Your task to perform on an android device: Go to accessibility settings Image 0: 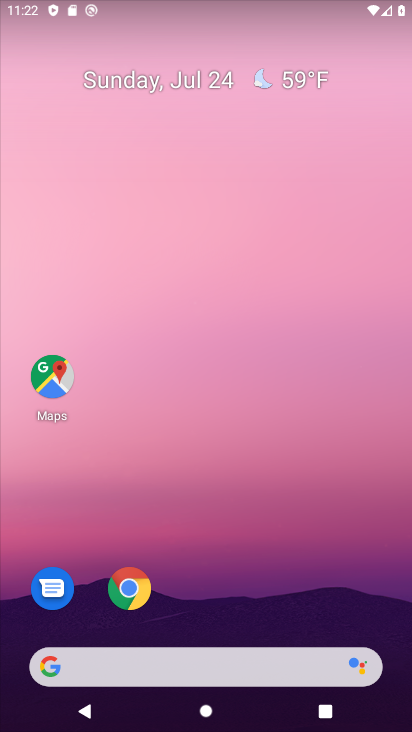
Step 0: drag from (277, 501) to (148, 14)
Your task to perform on an android device: Go to accessibility settings Image 1: 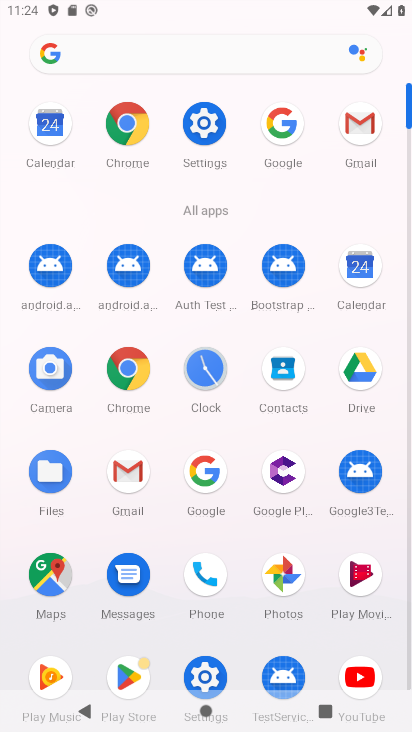
Step 1: click (195, 669)
Your task to perform on an android device: Go to accessibility settings Image 2: 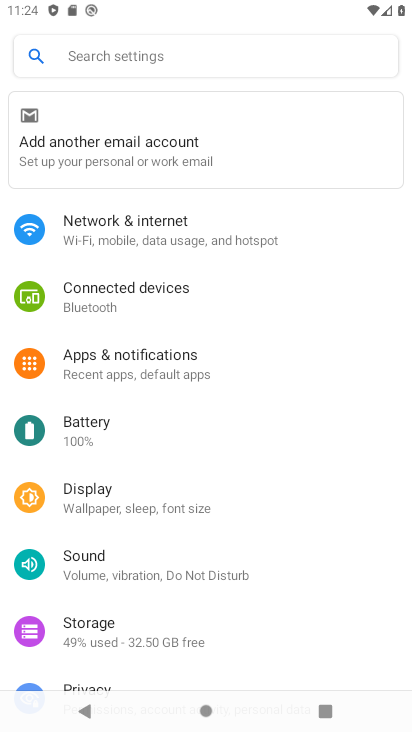
Step 2: drag from (67, 571) to (104, 6)
Your task to perform on an android device: Go to accessibility settings Image 3: 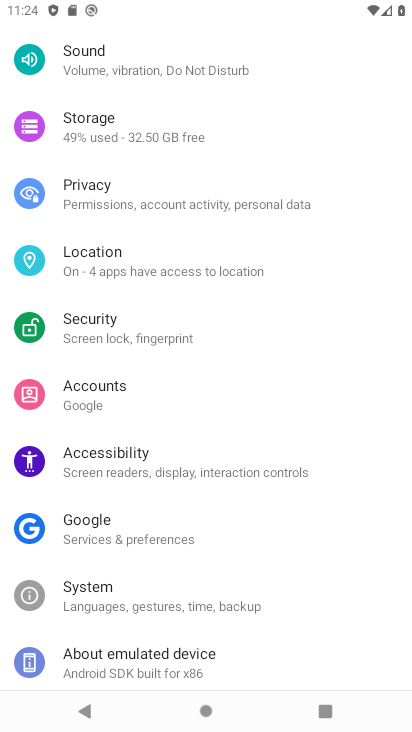
Step 3: click (65, 455)
Your task to perform on an android device: Go to accessibility settings Image 4: 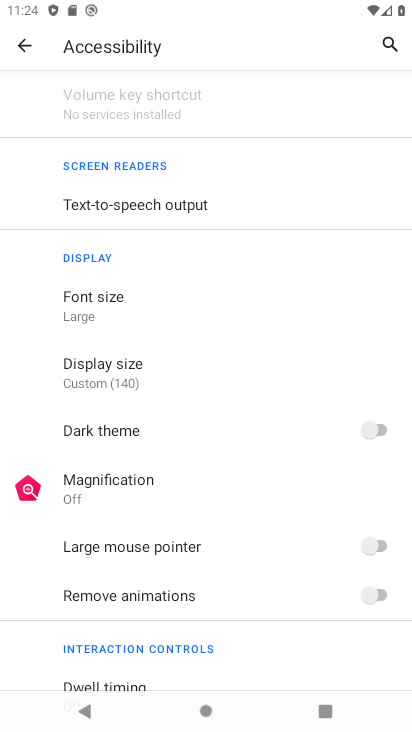
Step 4: task complete